Your task to perform on an android device: When is my next appointment? Image 0: 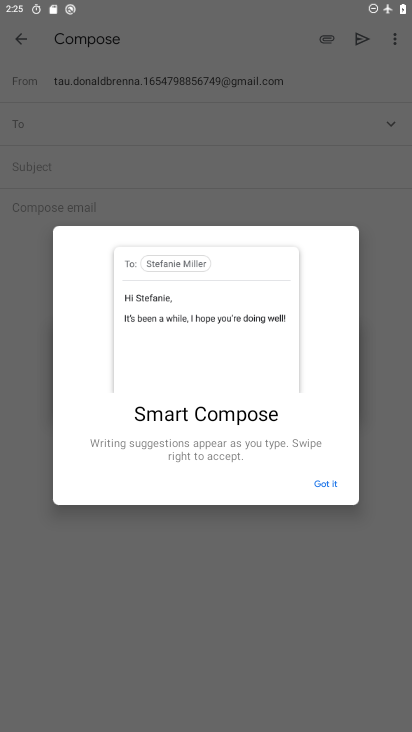
Step 0: press home button
Your task to perform on an android device: When is my next appointment? Image 1: 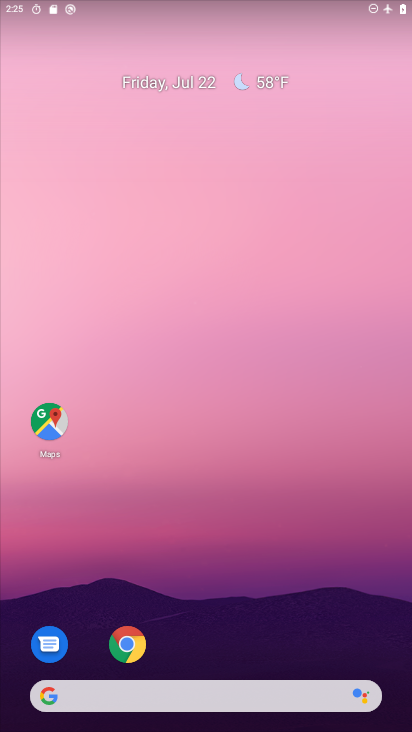
Step 1: drag from (197, 639) to (207, 109)
Your task to perform on an android device: When is my next appointment? Image 2: 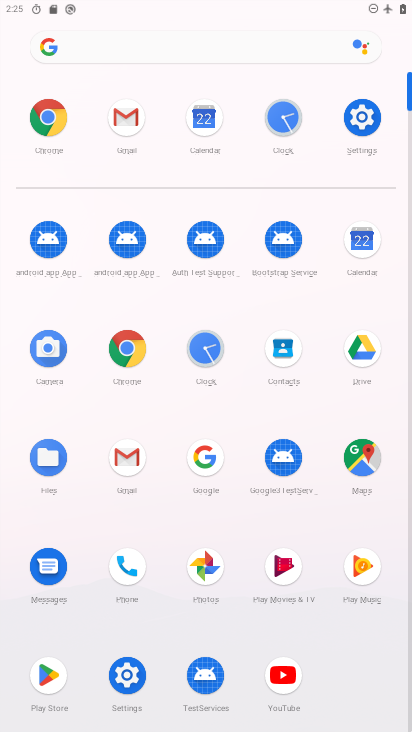
Step 2: click (189, 128)
Your task to perform on an android device: When is my next appointment? Image 3: 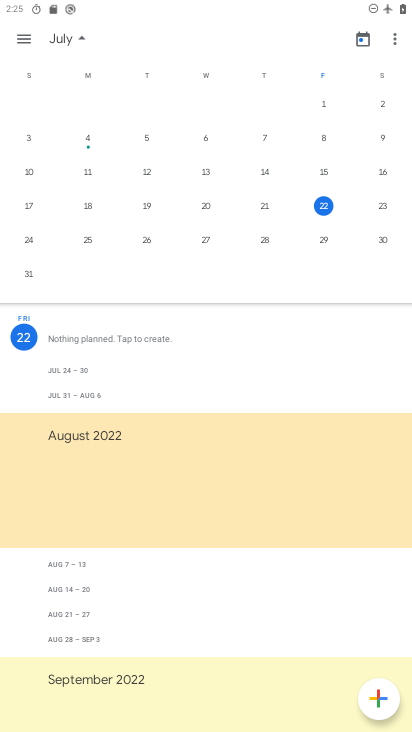
Step 3: click (34, 245)
Your task to perform on an android device: When is my next appointment? Image 4: 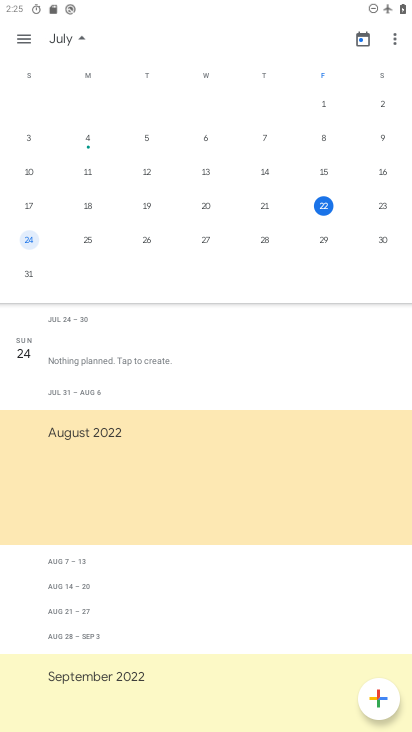
Step 4: click (93, 245)
Your task to perform on an android device: When is my next appointment? Image 5: 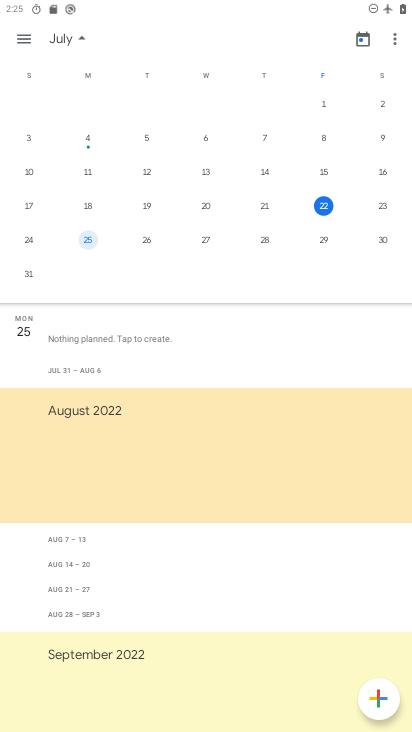
Step 5: task complete